Your task to perform on an android device: Go to location settings Image 0: 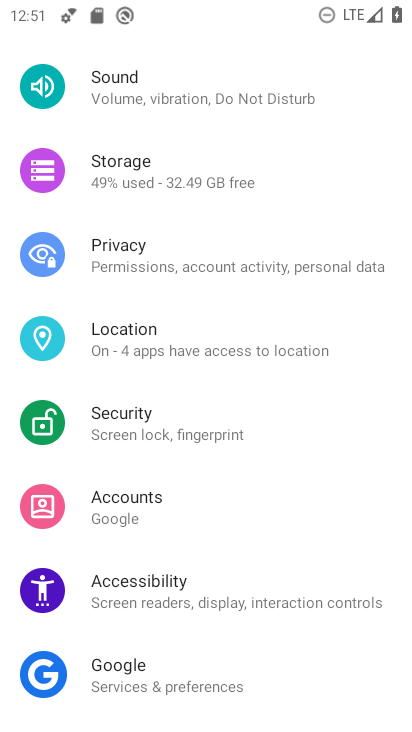
Step 0: click (172, 341)
Your task to perform on an android device: Go to location settings Image 1: 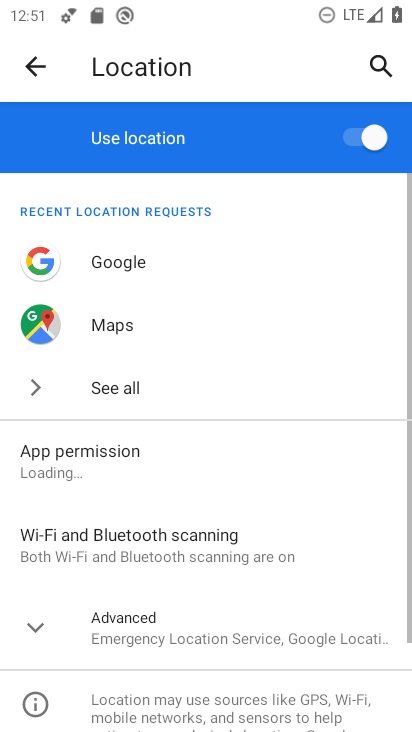
Step 1: task complete